Your task to perform on an android device: turn on airplane mode Image 0: 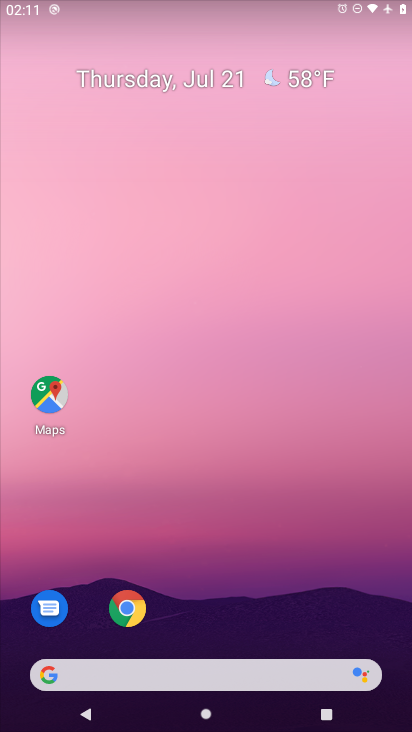
Step 0: press home button
Your task to perform on an android device: turn on airplane mode Image 1: 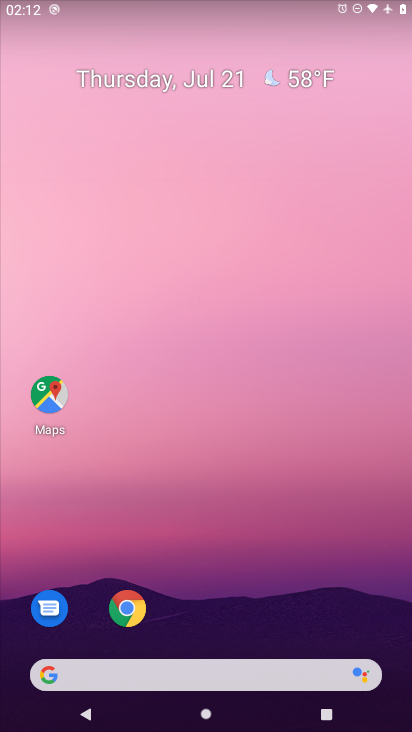
Step 1: task complete